Your task to perform on an android device: turn off wifi Image 0: 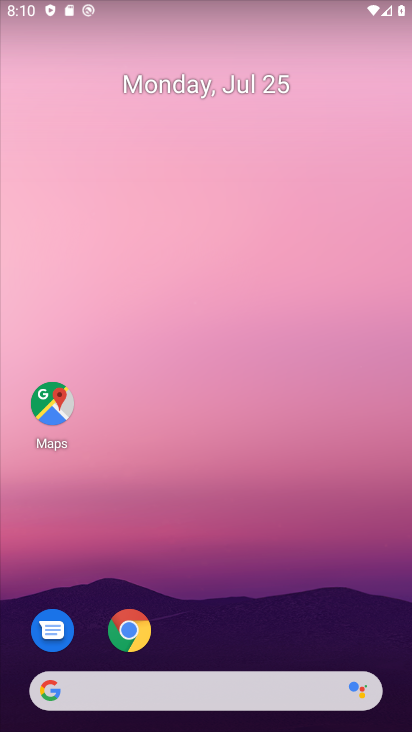
Step 0: drag from (62, 636) to (291, 217)
Your task to perform on an android device: turn off wifi Image 1: 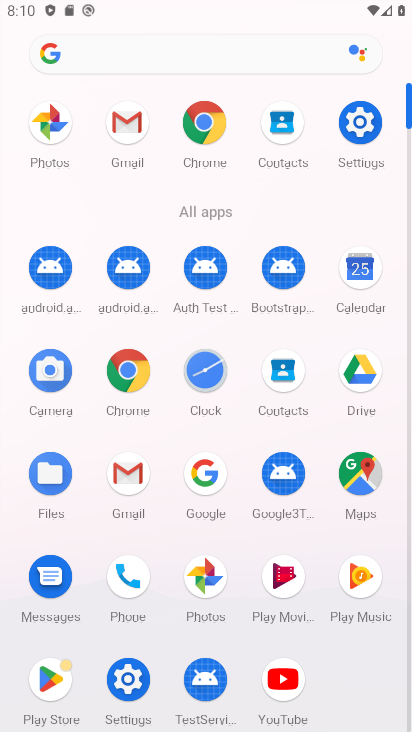
Step 1: click (123, 693)
Your task to perform on an android device: turn off wifi Image 2: 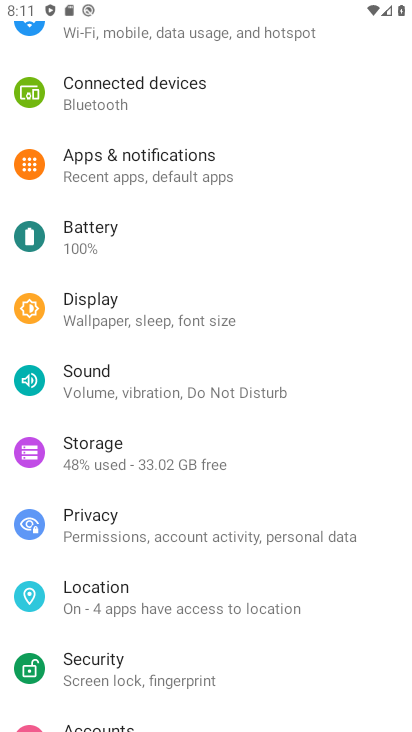
Step 2: drag from (271, 82) to (273, 466)
Your task to perform on an android device: turn off wifi Image 3: 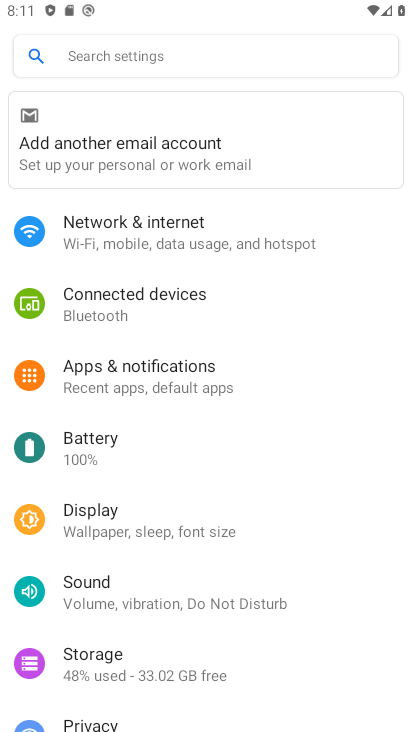
Step 3: click (203, 226)
Your task to perform on an android device: turn off wifi Image 4: 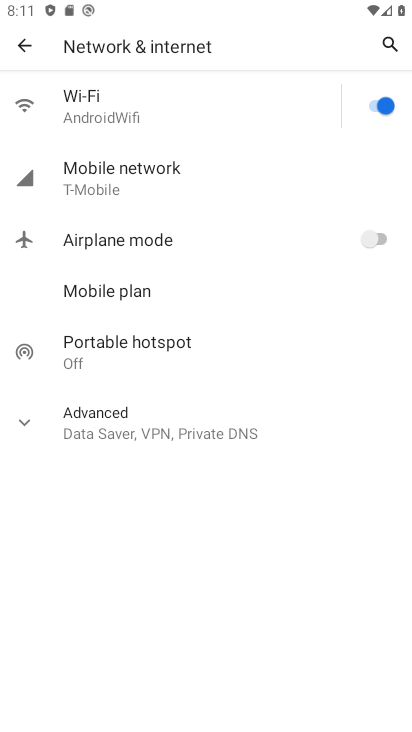
Step 4: click (383, 111)
Your task to perform on an android device: turn off wifi Image 5: 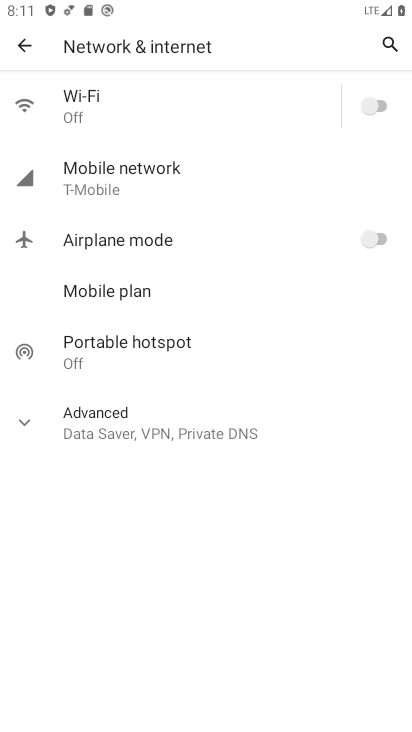
Step 5: task complete